Your task to perform on an android device: open app "Nova Launcher" (install if not already installed) Image 0: 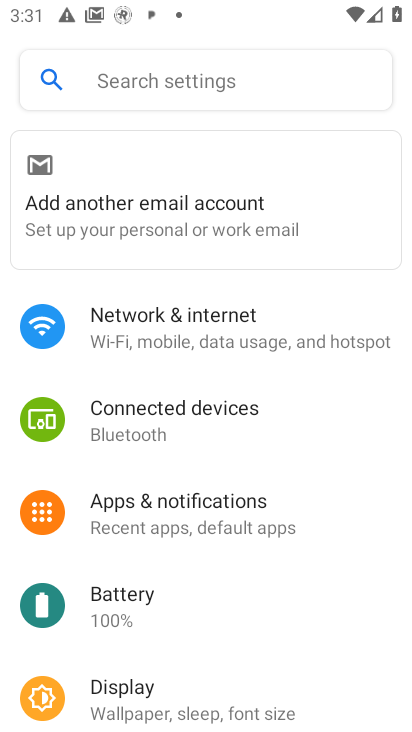
Step 0: press home button
Your task to perform on an android device: open app "Nova Launcher" (install if not already installed) Image 1: 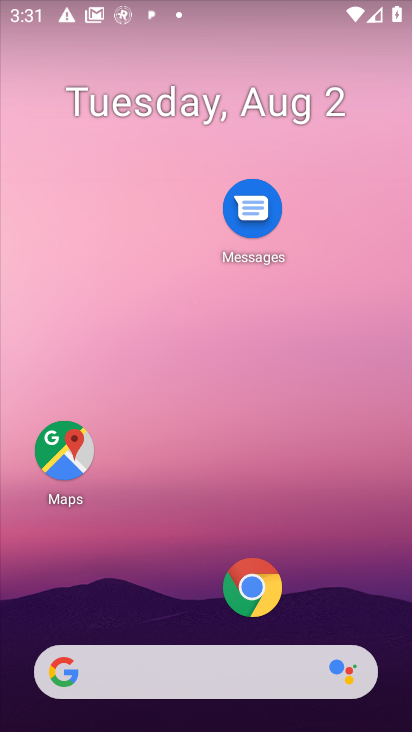
Step 1: drag from (147, 605) to (206, 261)
Your task to perform on an android device: open app "Nova Launcher" (install if not already installed) Image 2: 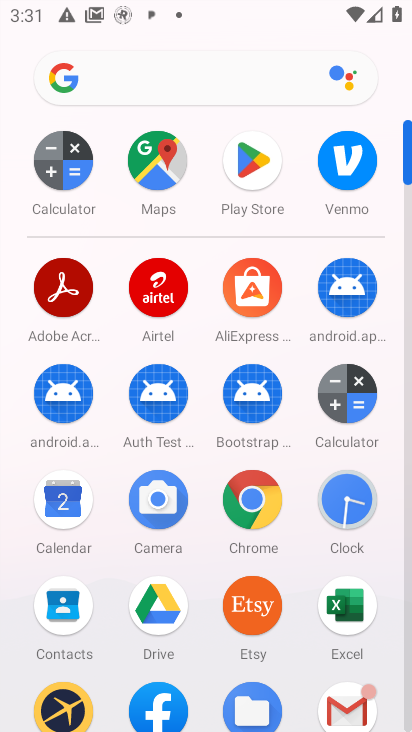
Step 2: click (247, 181)
Your task to perform on an android device: open app "Nova Launcher" (install if not already installed) Image 3: 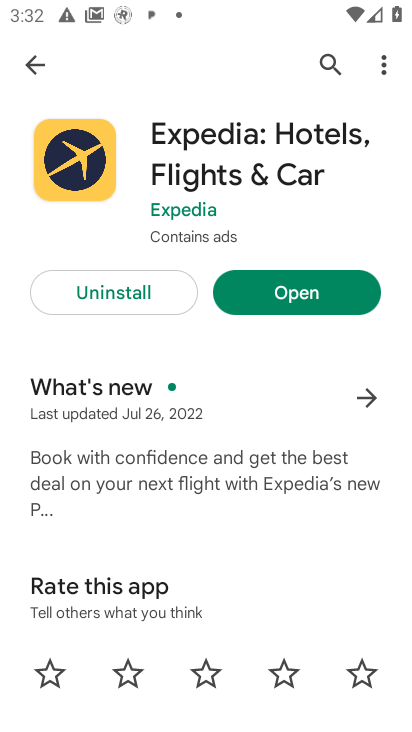
Step 3: click (321, 57)
Your task to perform on an android device: open app "Nova Launcher" (install if not already installed) Image 4: 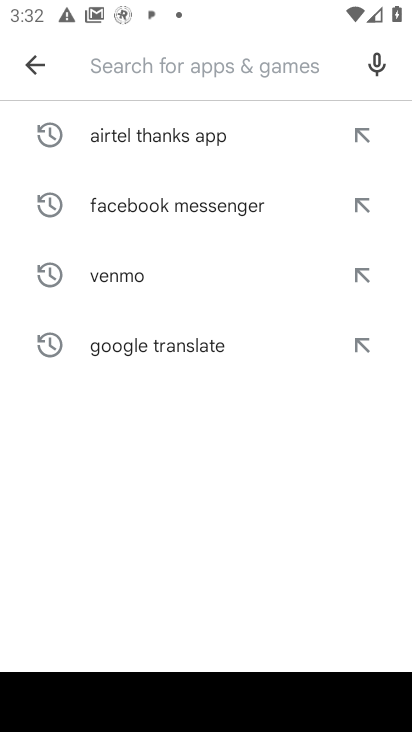
Step 4: type "Nova Launcher"
Your task to perform on an android device: open app "Nova Launcher" (install if not already installed) Image 5: 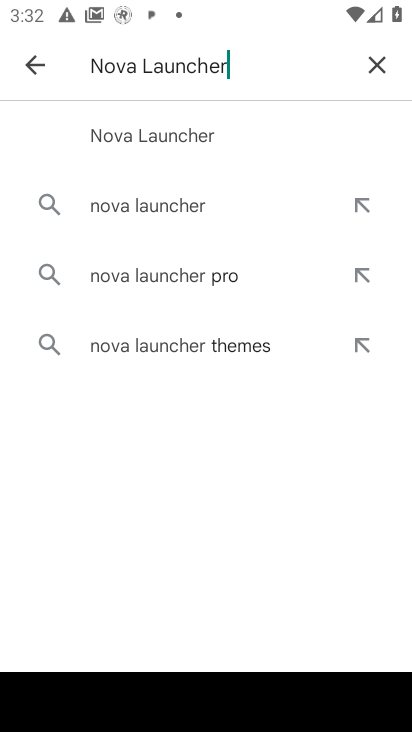
Step 5: type ""
Your task to perform on an android device: open app "Nova Launcher" (install if not already installed) Image 6: 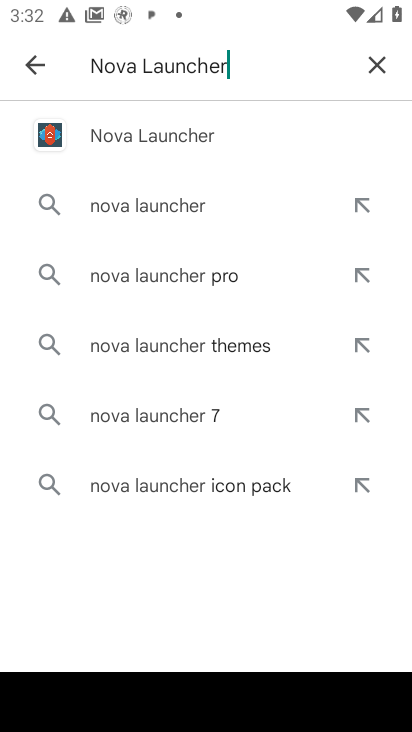
Step 6: click (150, 150)
Your task to perform on an android device: open app "Nova Launcher" (install if not already installed) Image 7: 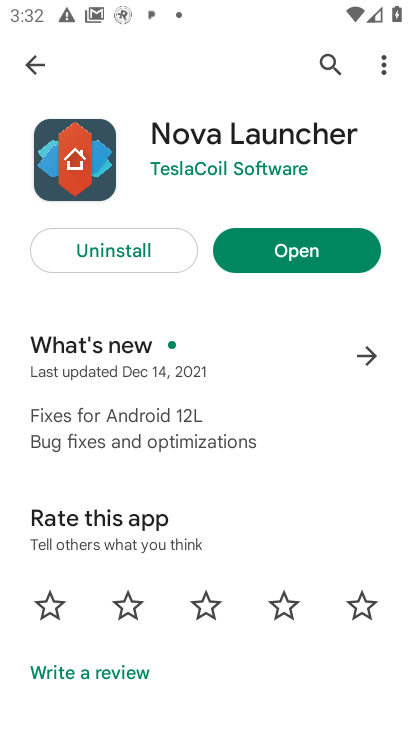
Step 7: click (277, 263)
Your task to perform on an android device: open app "Nova Launcher" (install if not already installed) Image 8: 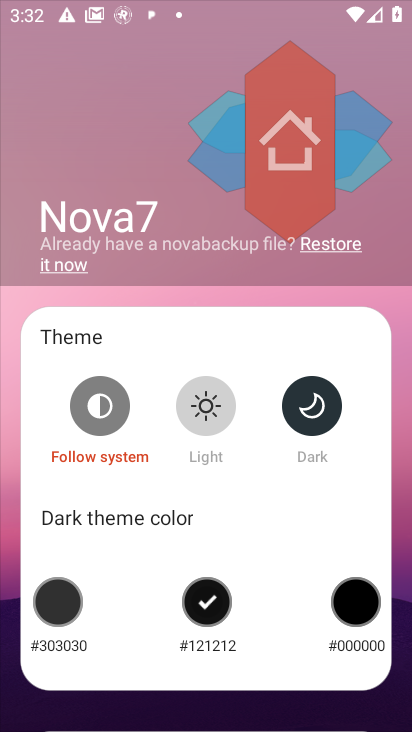
Step 8: task complete